Your task to perform on an android device: Do I have any events this weekend? Image 0: 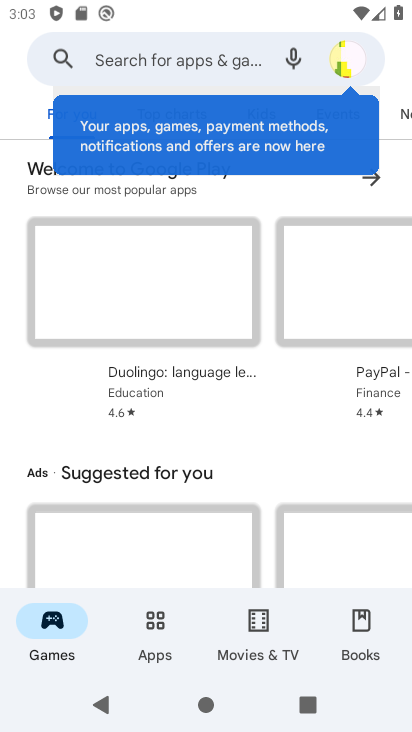
Step 0: drag from (180, 572) to (259, 172)
Your task to perform on an android device: Do I have any events this weekend? Image 1: 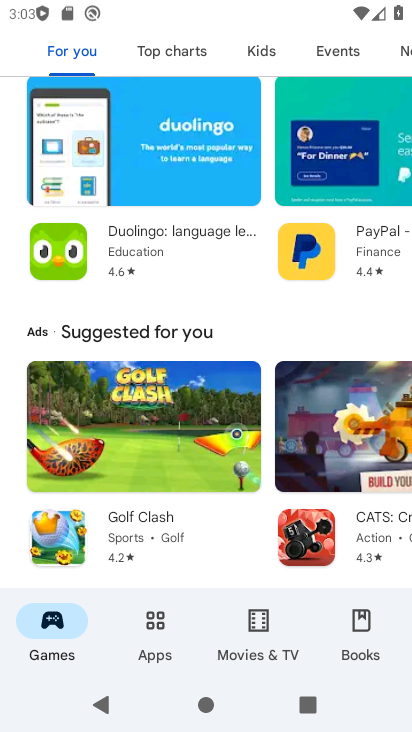
Step 1: press home button
Your task to perform on an android device: Do I have any events this weekend? Image 2: 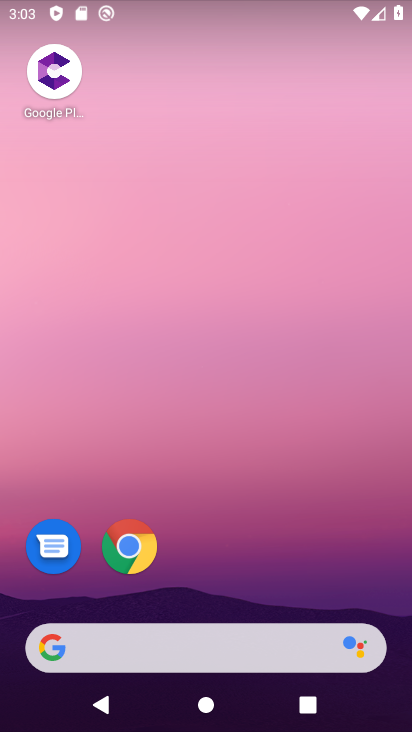
Step 2: drag from (169, 594) to (243, 180)
Your task to perform on an android device: Do I have any events this weekend? Image 3: 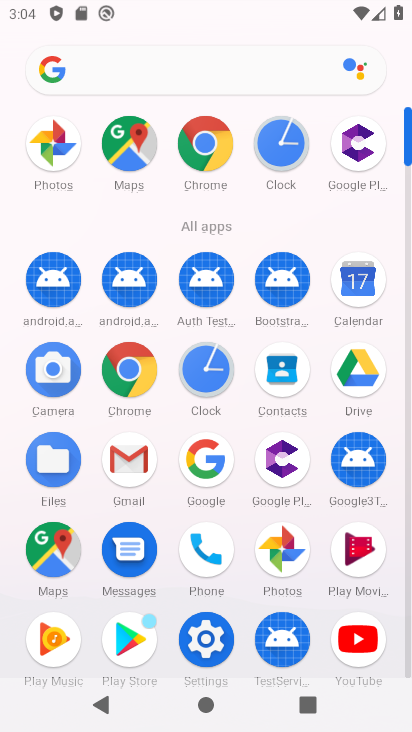
Step 3: click (350, 287)
Your task to perform on an android device: Do I have any events this weekend? Image 4: 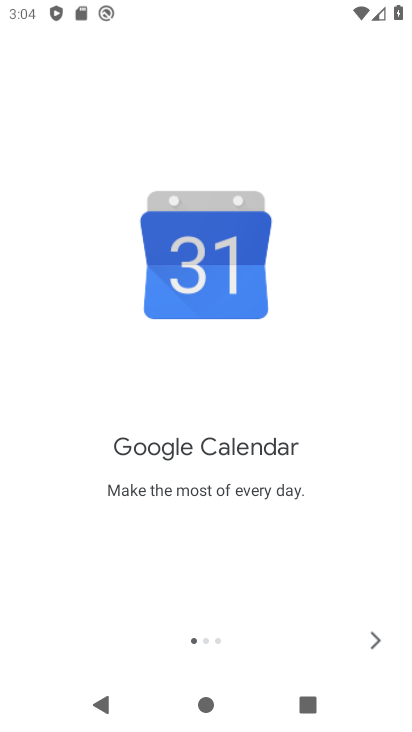
Step 4: click (359, 629)
Your task to perform on an android device: Do I have any events this weekend? Image 5: 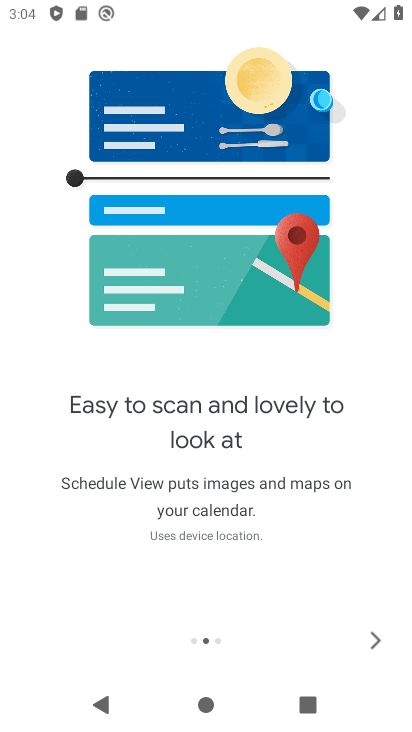
Step 5: click (375, 646)
Your task to perform on an android device: Do I have any events this weekend? Image 6: 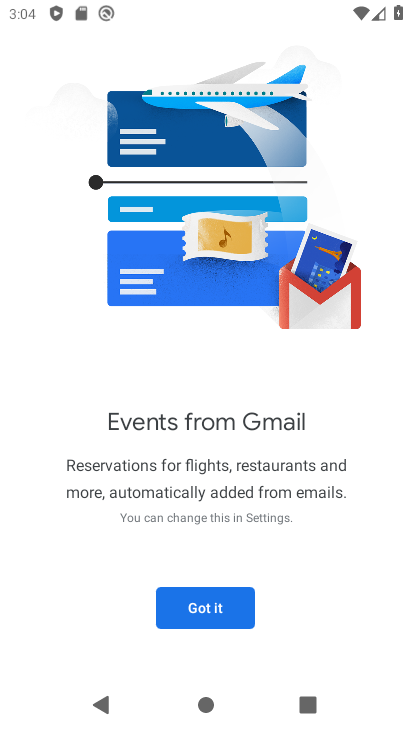
Step 6: click (238, 618)
Your task to perform on an android device: Do I have any events this weekend? Image 7: 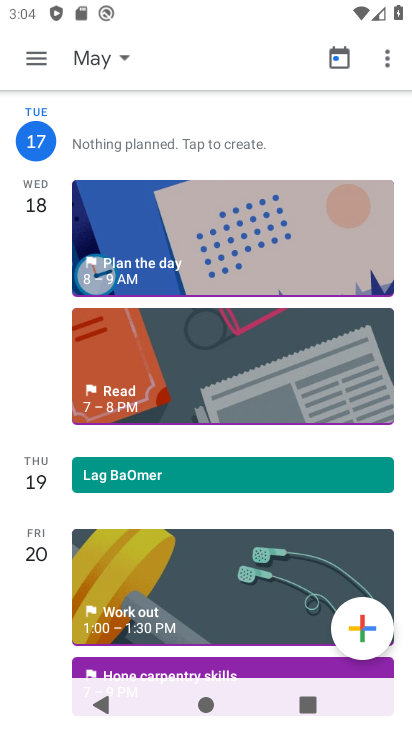
Step 7: click (106, 58)
Your task to perform on an android device: Do I have any events this weekend? Image 8: 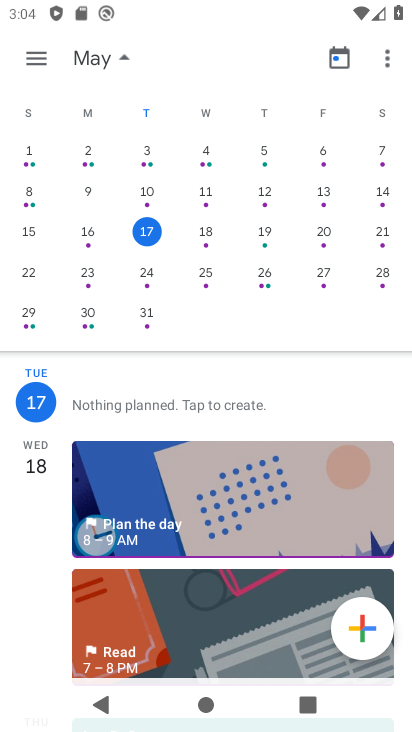
Step 8: click (383, 235)
Your task to perform on an android device: Do I have any events this weekend? Image 9: 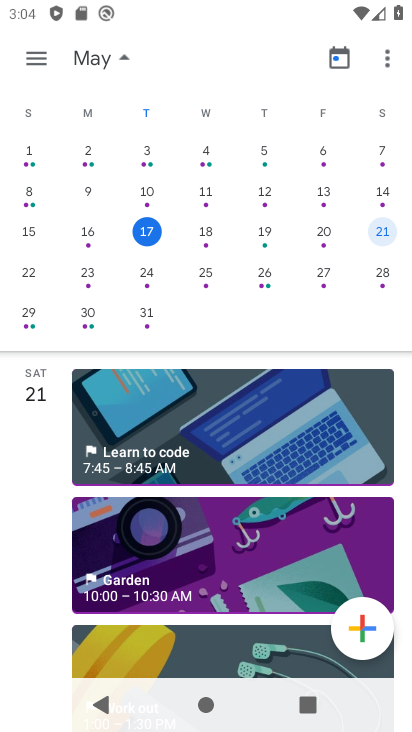
Step 9: click (22, 282)
Your task to perform on an android device: Do I have any events this weekend? Image 10: 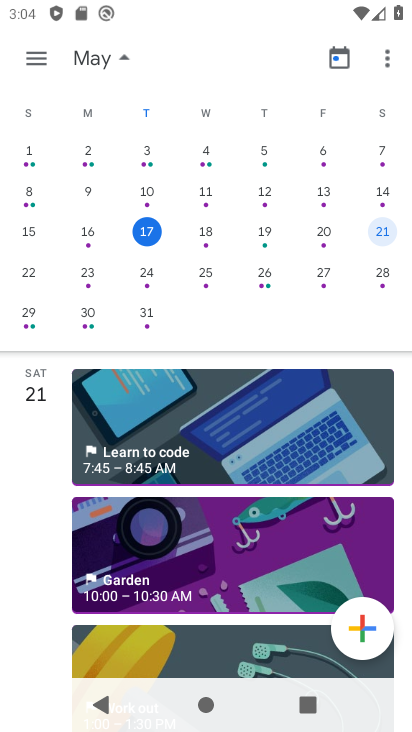
Step 10: click (29, 272)
Your task to perform on an android device: Do I have any events this weekend? Image 11: 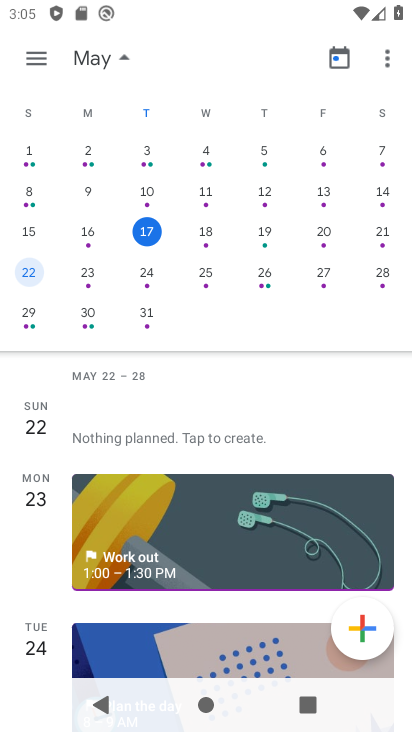
Step 11: task complete